Your task to perform on an android device: What is the news today? Image 0: 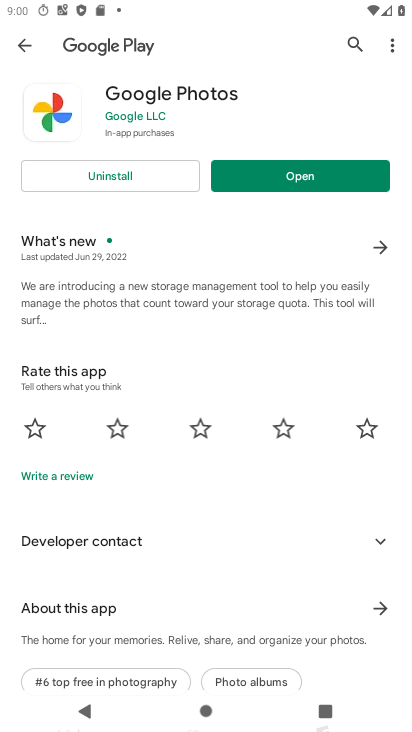
Step 0: press home button
Your task to perform on an android device: What is the news today? Image 1: 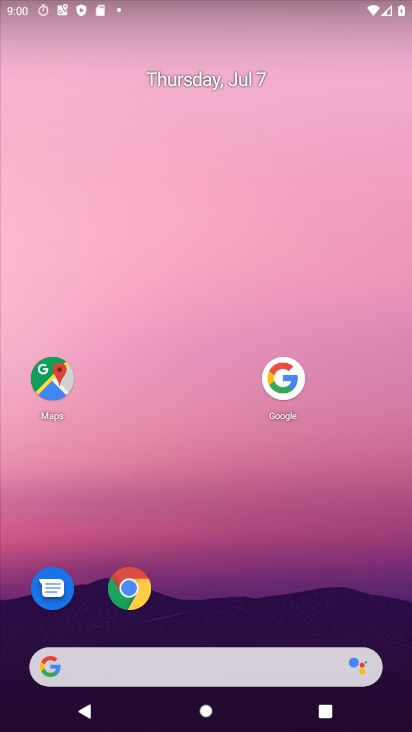
Step 1: click (203, 665)
Your task to perform on an android device: What is the news today? Image 2: 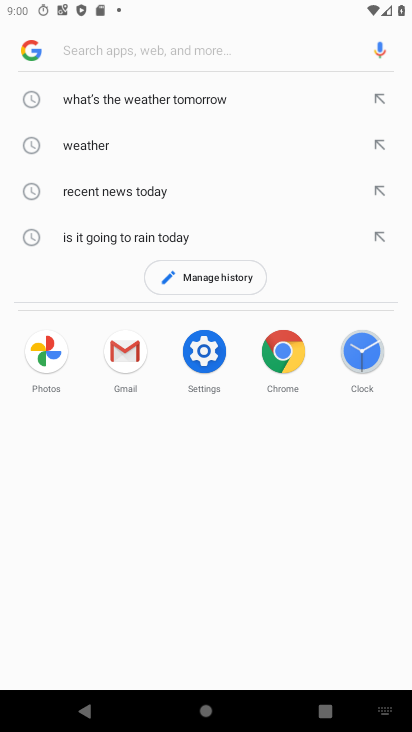
Step 2: click (138, 195)
Your task to perform on an android device: What is the news today? Image 3: 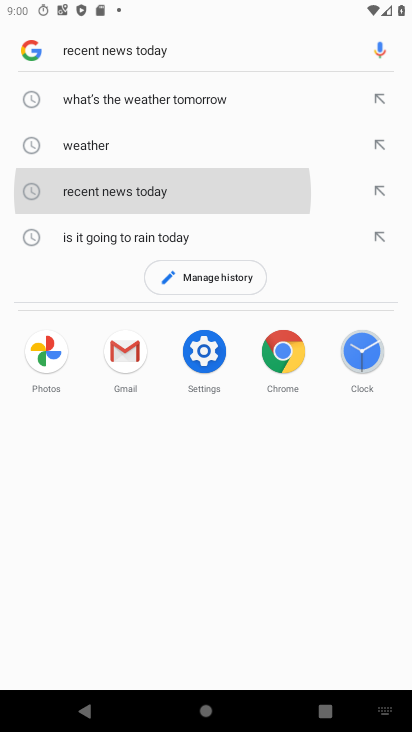
Step 3: click (141, 183)
Your task to perform on an android device: What is the news today? Image 4: 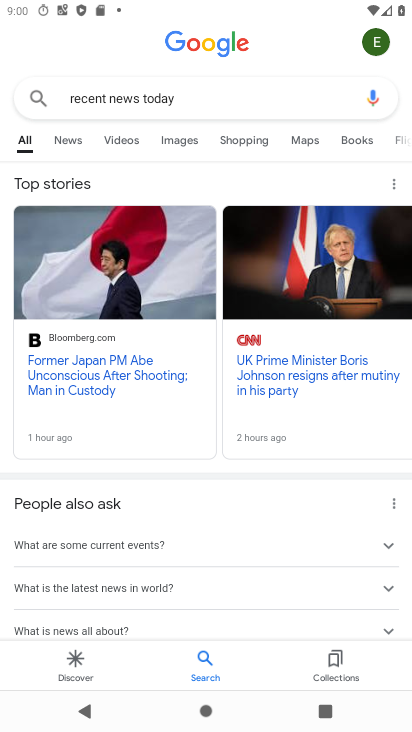
Step 4: task complete